Your task to perform on an android device: change the clock display to digital Image 0: 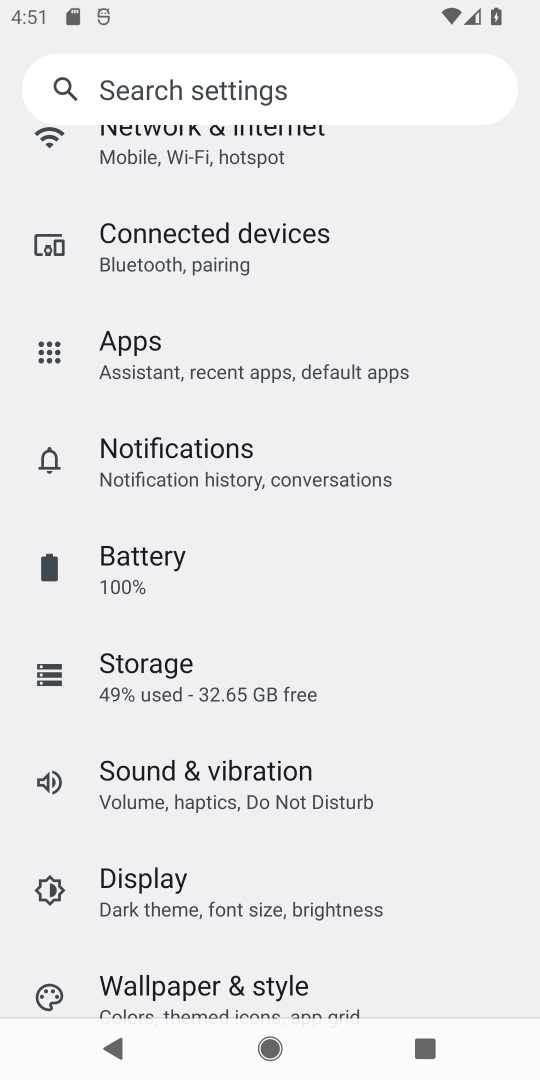
Step 0: press home button
Your task to perform on an android device: change the clock display to digital Image 1: 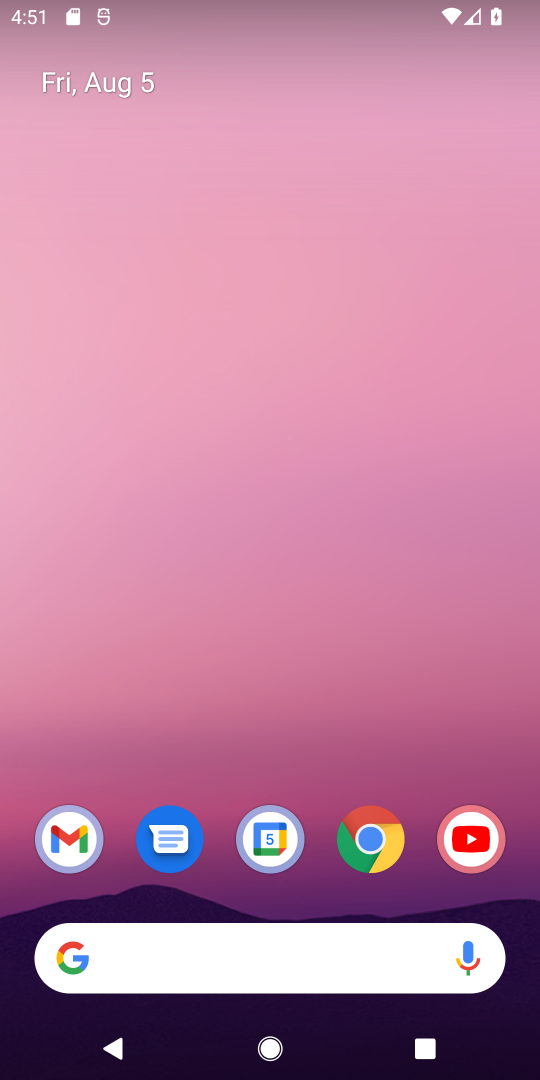
Step 1: drag from (264, 704) to (204, 136)
Your task to perform on an android device: change the clock display to digital Image 2: 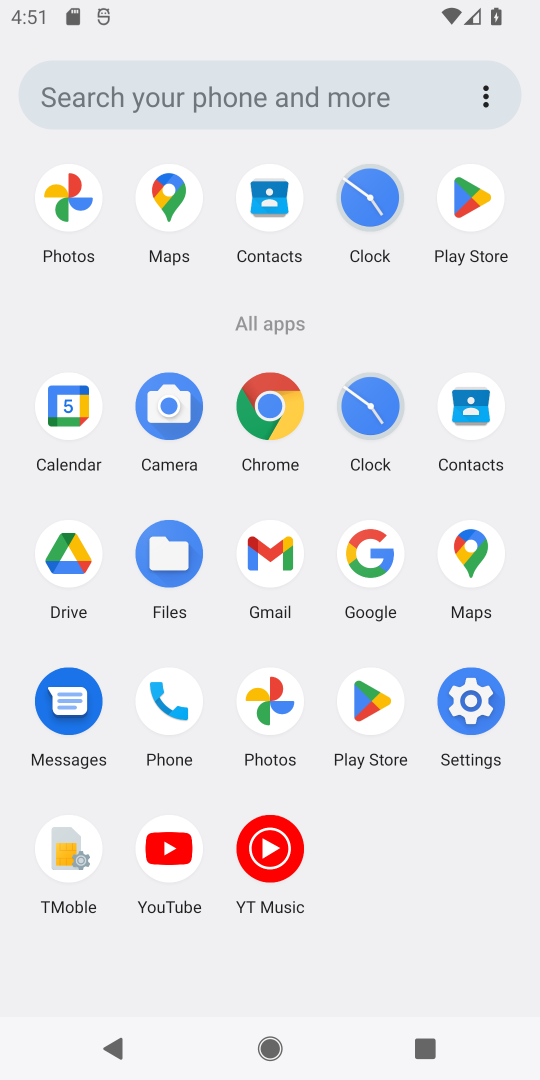
Step 2: click (381, 202)
Your task to perform on an android device: change the clock display to digital Image 3: 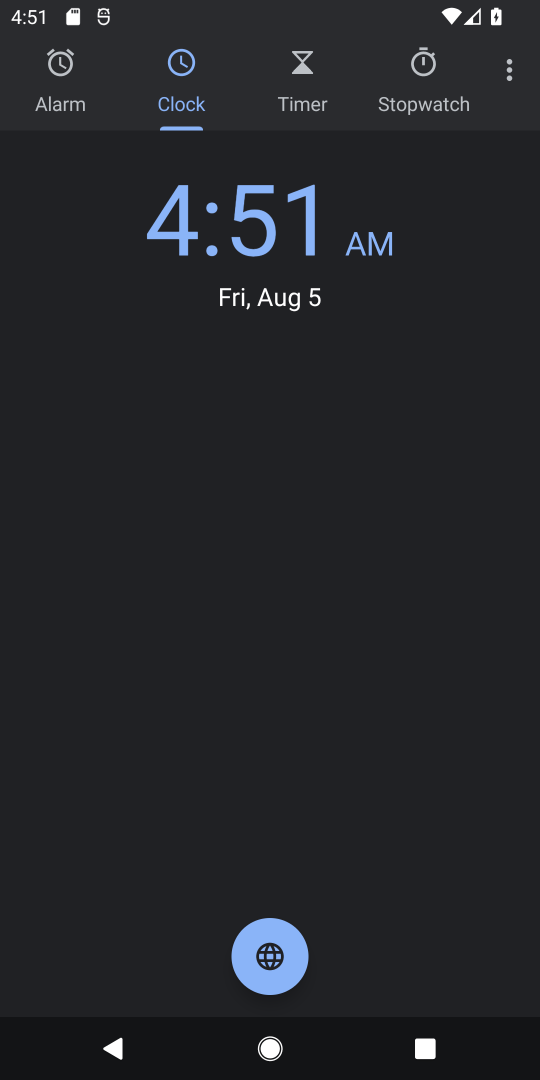
Step 3: click (502, 82)
Your task to perform on an android device: change the clock display to digital Image 4: 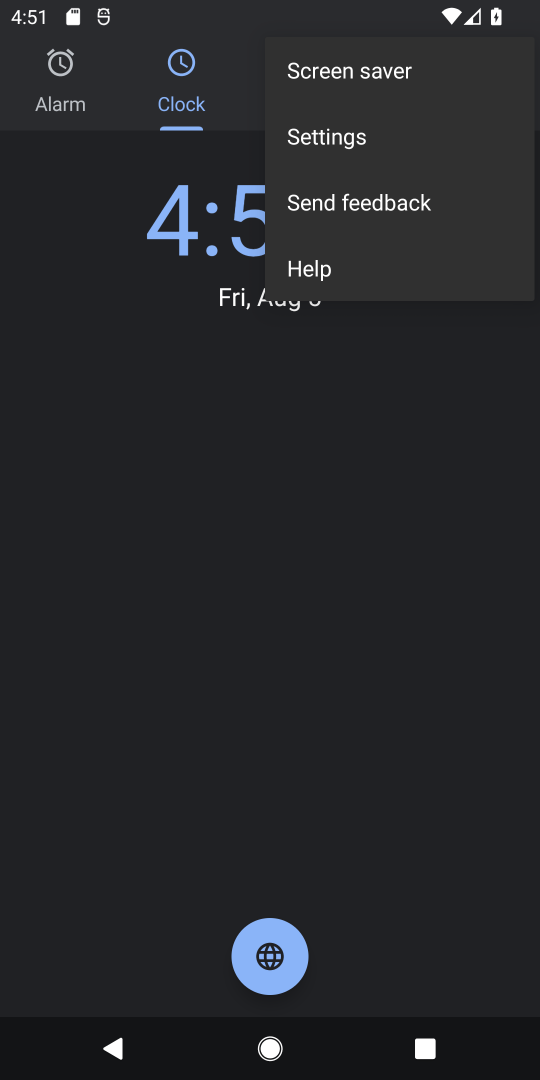
Step 4: click (392, 134)
Your task to perform on an android device: change the clock display to digital Image 5: 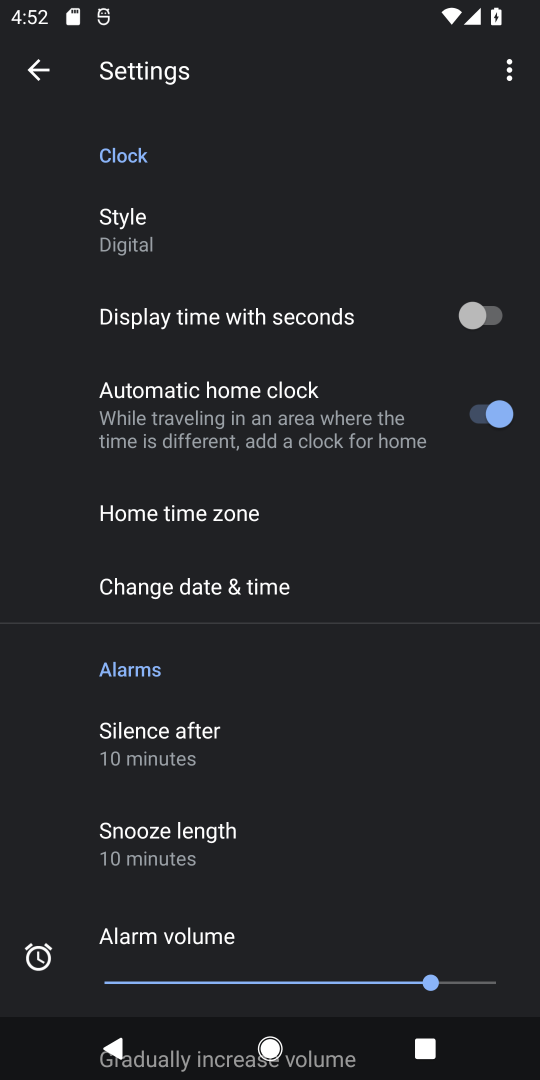
Step 5: task complete